Your task to perform on an android device: turn off translation in the chrome app Image 0: 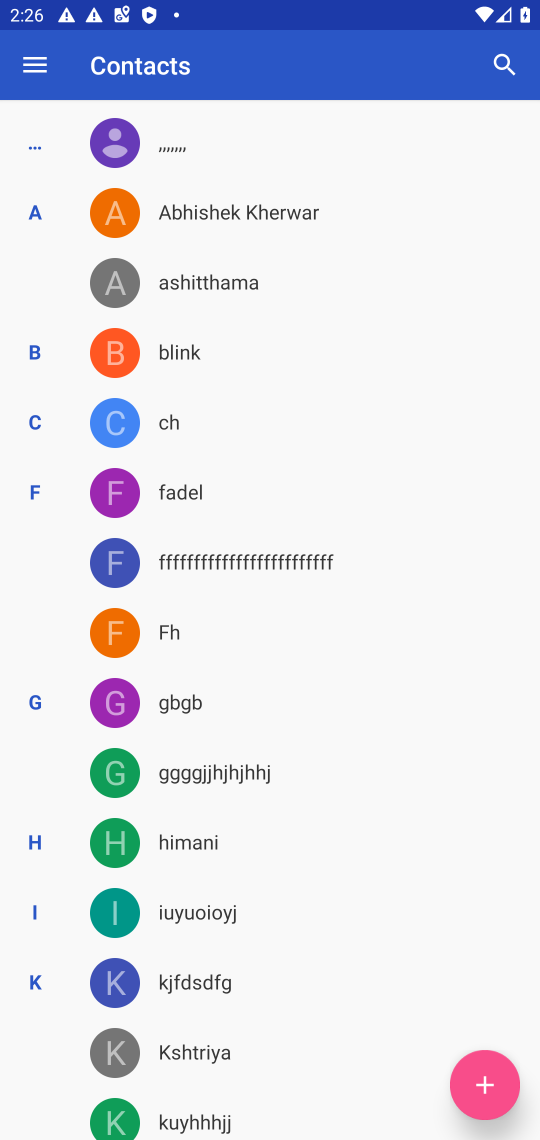
Step 0: press home button
Your task to perform on an android device: turn off translation in the chrome app Image 1: 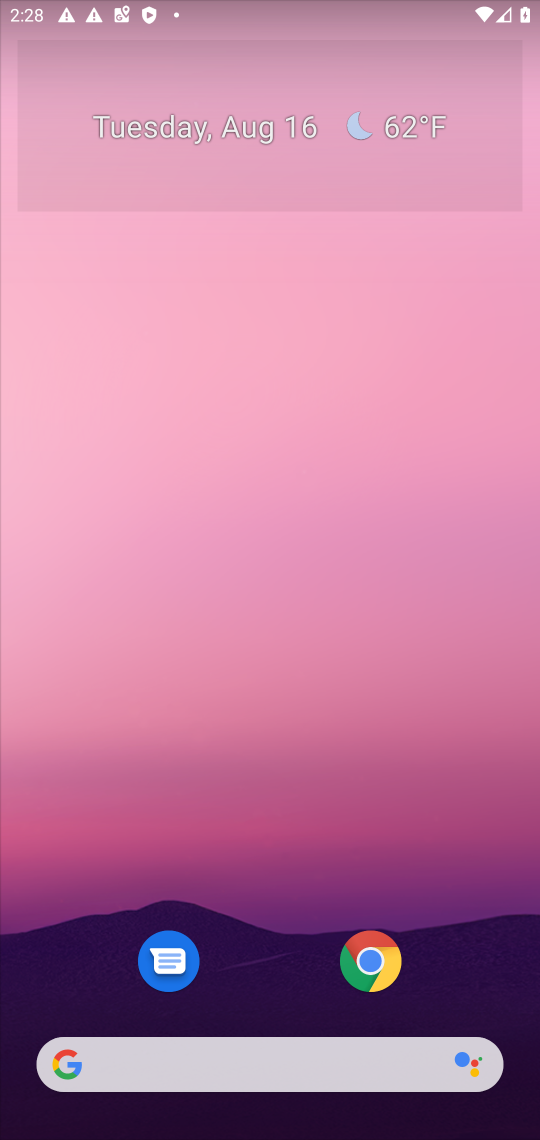
Step 1: drag from (427, 528) to (403, 364)
Your task to perform on an android device: turn off translation in the chrome app Image 2: 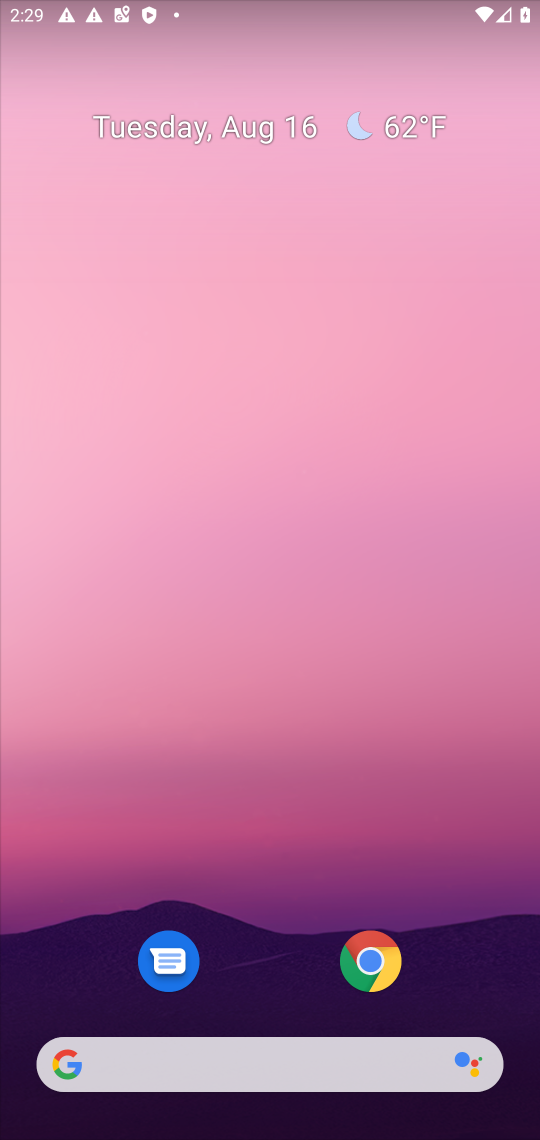
Step 2: drag from (473, 776) to (396, 19)
Your task to perform on an android device: turn off translation in the chrome app Image 3: 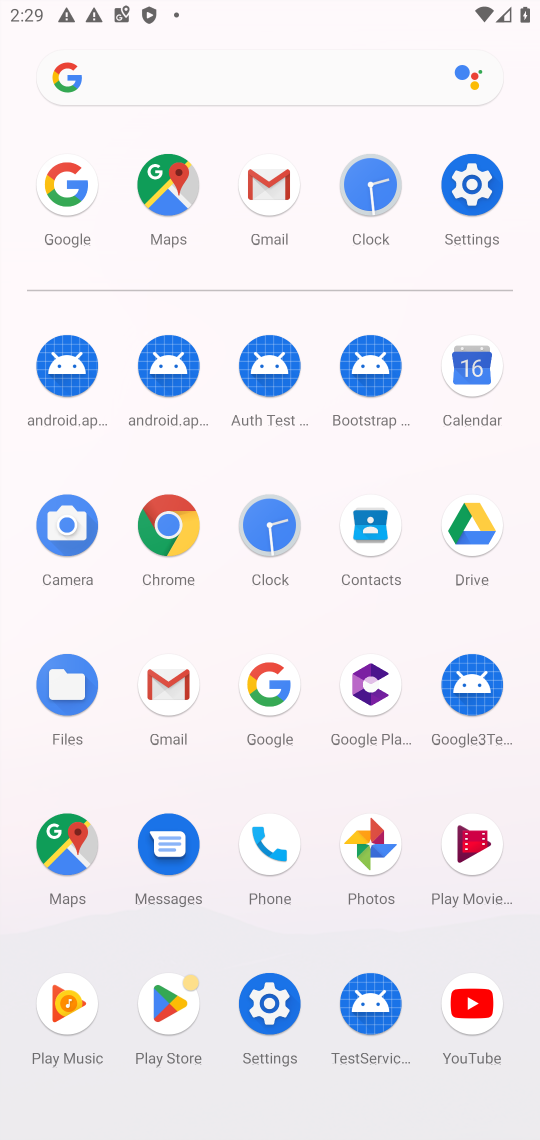
Step 3: click (172, 507)
Your task to perform on an android device: turn off translation in the chrome app Image 4: 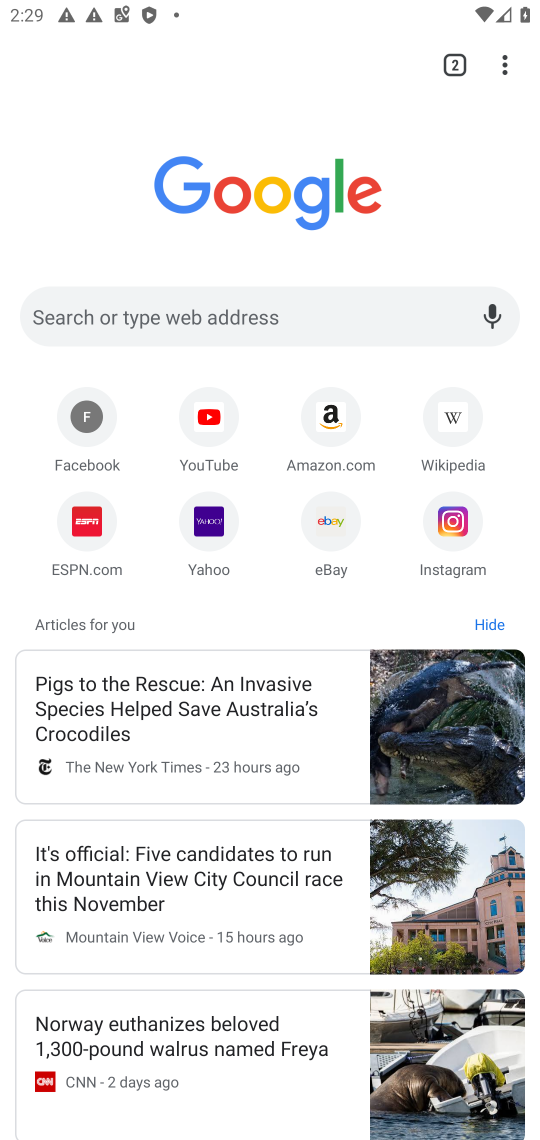
Step 4: click (504, 66)
Your task to perform on an android device: turn off translation in the chrome app Image 5: 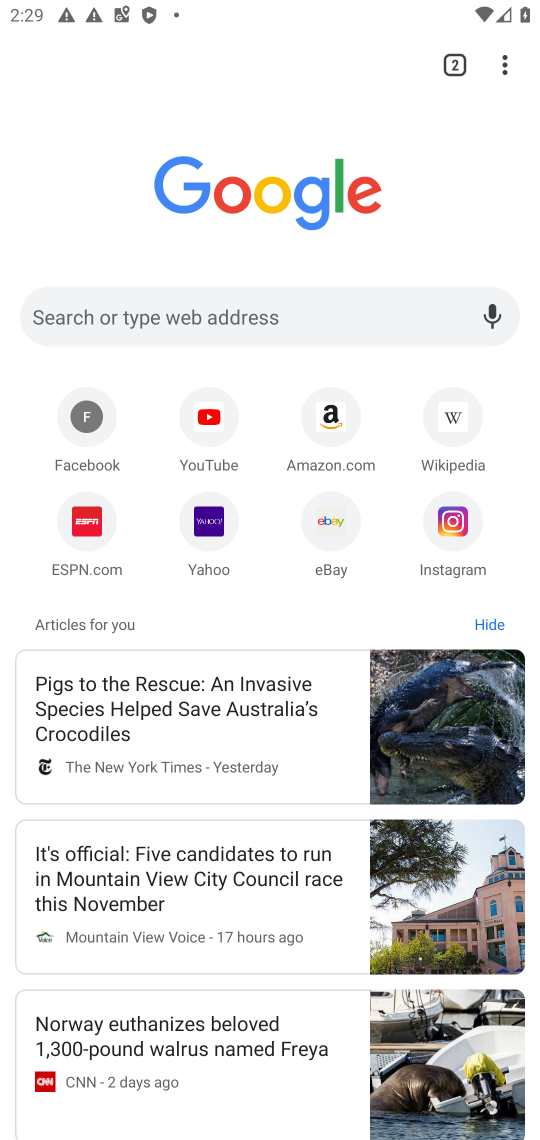
Step 5: click (507, 60)
Your task to perform on an android device: turn off translation in the chrome app Image 6: 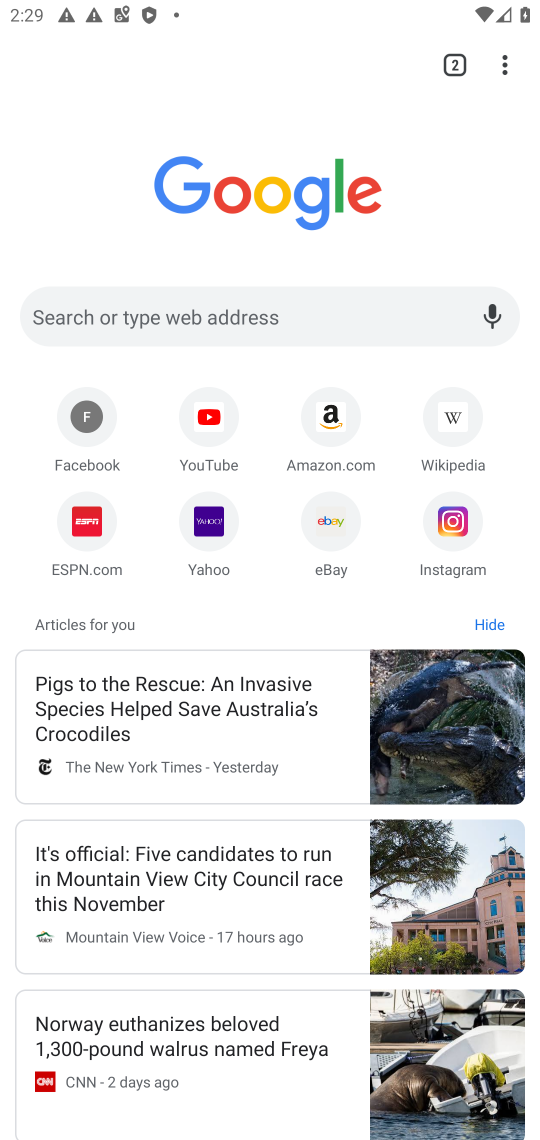
Step 6: click (499, 57)
Your task to perform on an android device: turn off translation in the chrome app Image 7: 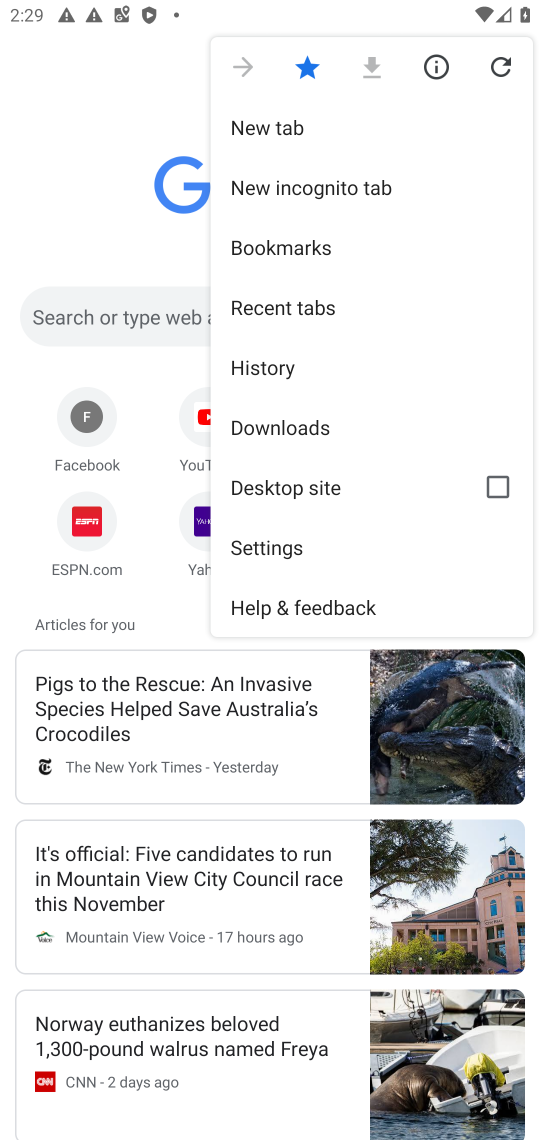
Step 7: click (304, 551)
Your task to perform on an android device: turn off translation in the chrome app Image 8: 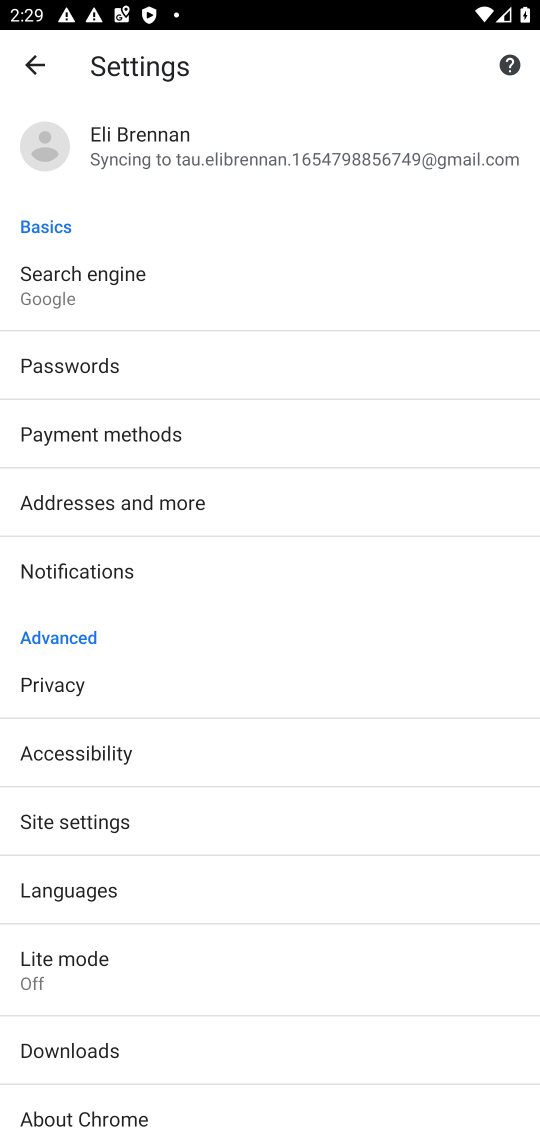
Step 8: click (119, 888)
Your task to perform on an android device: turn off translation in the chrome app Image 9: 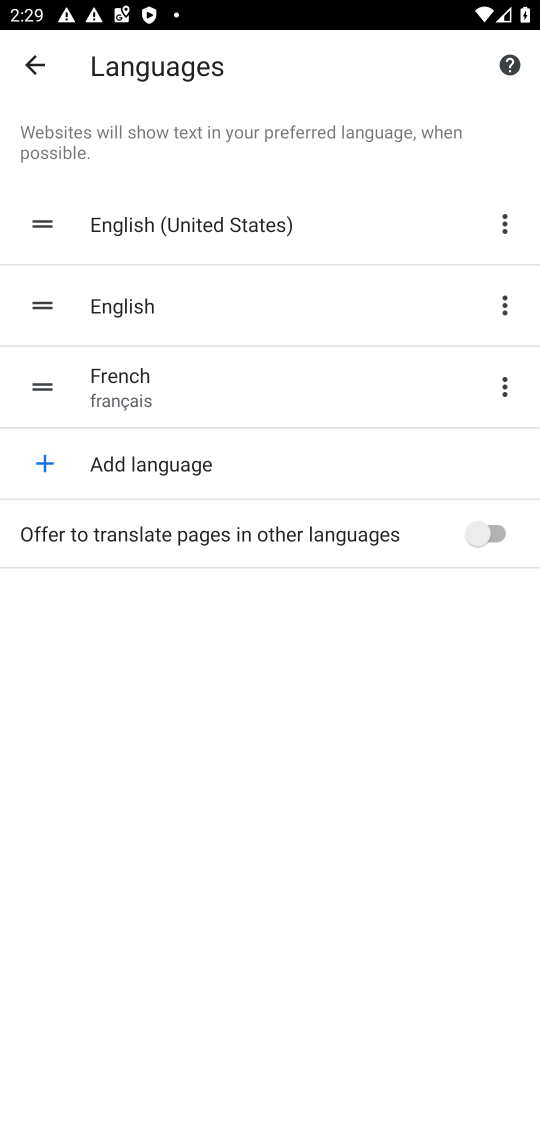
Step 9: task complete